Your task to perform on an android device: see sites visited before in the chrome app Image 0: 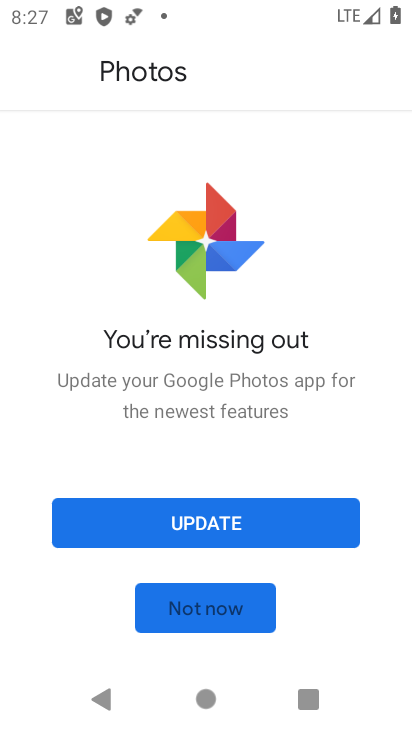
Step 0: press home button
Your task to perform on an android device: see sites visited before in the chrome app Image 1: 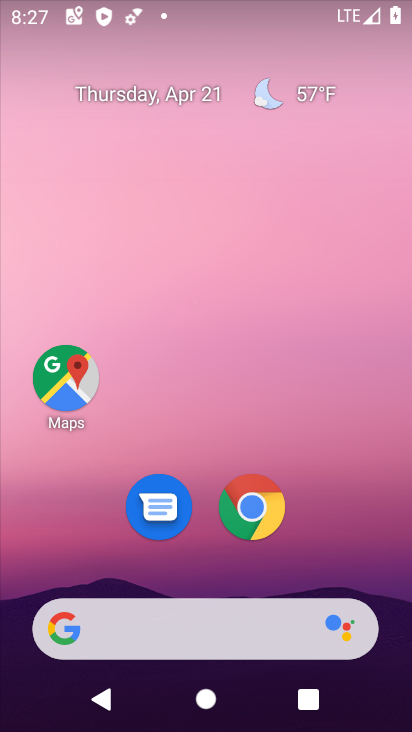
Step 1: click (251, 507)
Your task to perform on an android device: see sites visited before in the chrome app Image 2: 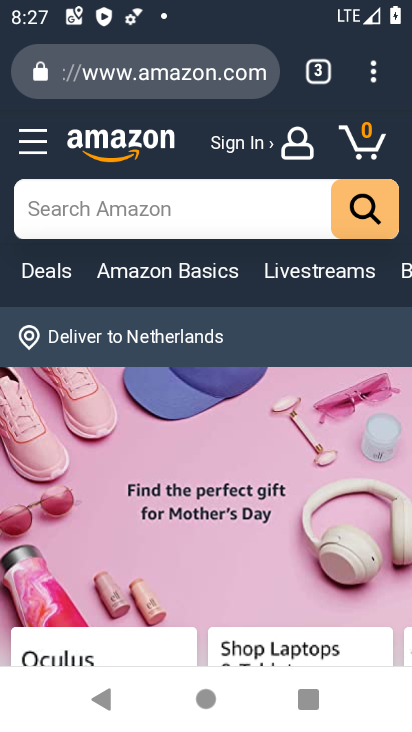
Step 2: task complete